Your task to perform on an android device: Open the calendar app, open the side menu, and click the "Day" option Image 0: 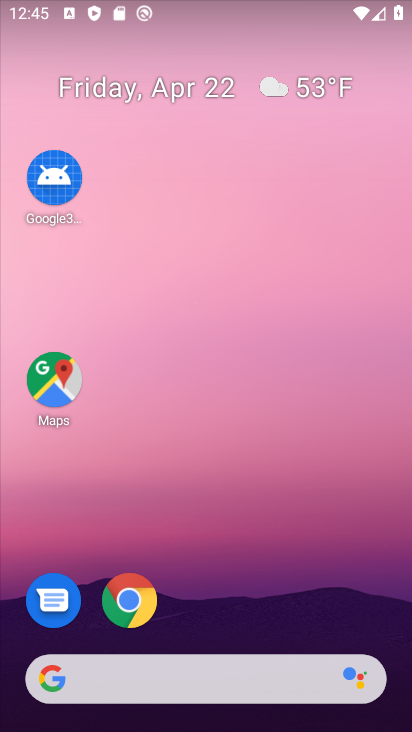
Step 0: drag from (254, 580) to (213, 31)
Your task to perform on an android device: Open the calendar app, open the side menu, and click the "Day" option Image 1: 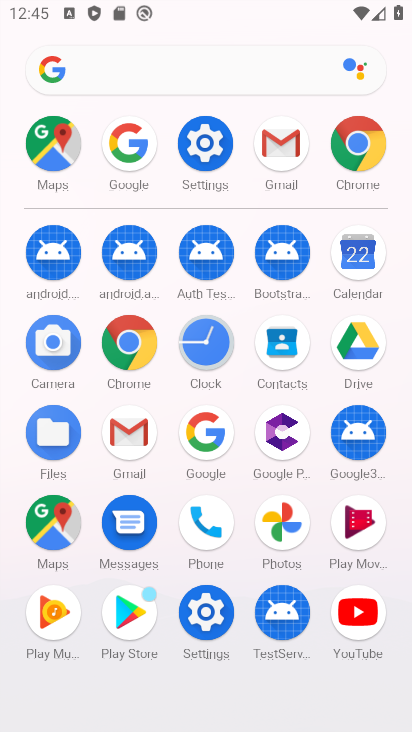
Step 1: click (363, 254)
Your task to perform on an android device: Open the calendar app, open the side menu, and click the "Day" option Image 2: 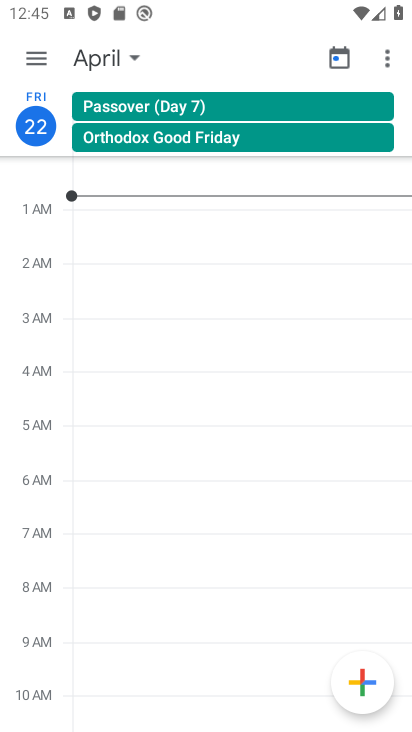
Step 2: click (32, 63)
Your task to perform on an android device: Open the calendar app, open the side menu, and click the "Day" option Image 3: 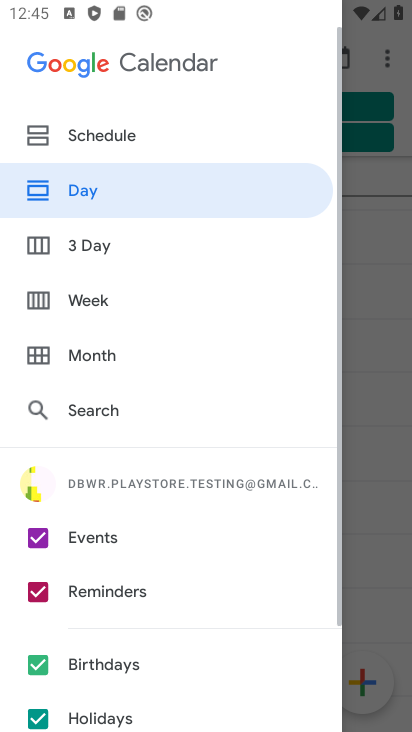
Step 3: click (116, 191)
Your task to perform on an android device: Open the calendar app, open the side menu, and click the "Day" option Image 4: 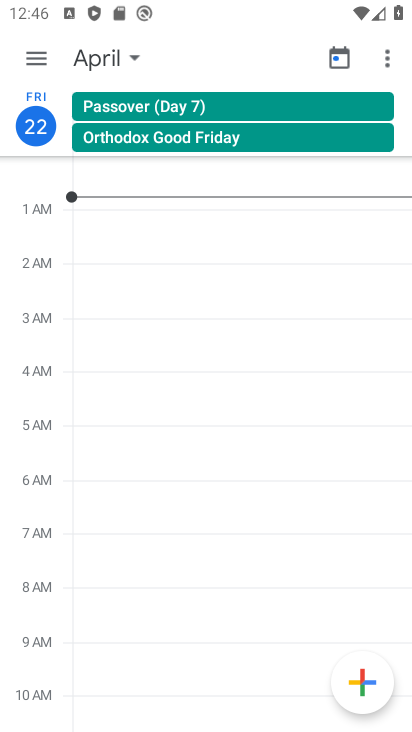
Step 4: task complete